Your task to perform on an android device: Check the news Image 0: 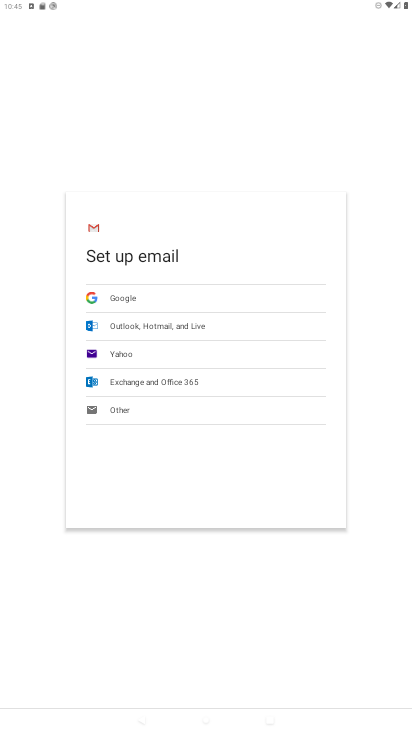
Step 0: press home button
Your task to perform on an android device: Check the news Image 1: 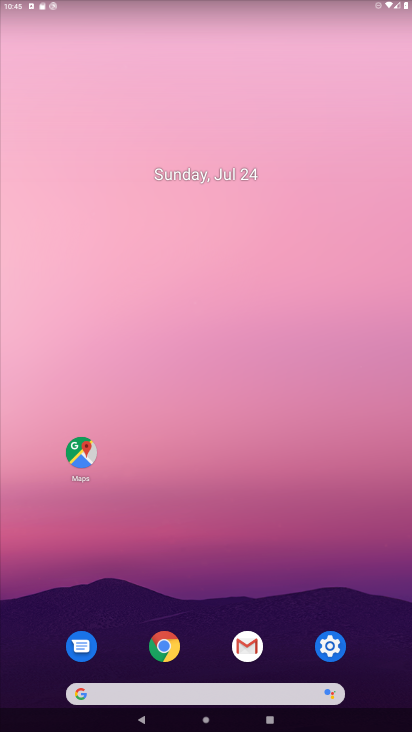
Step 1: click (245, 697)
Your task to perform on an android device: Check the news Image 2: 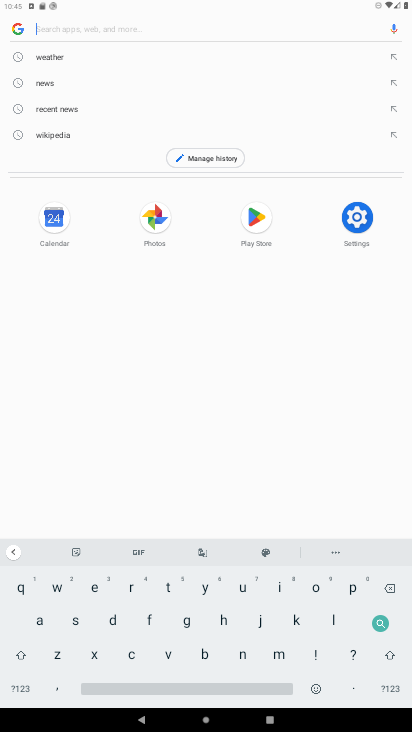
Step 2: click (53, 87)
Your task to perform on an android device: Check the news Image 3: 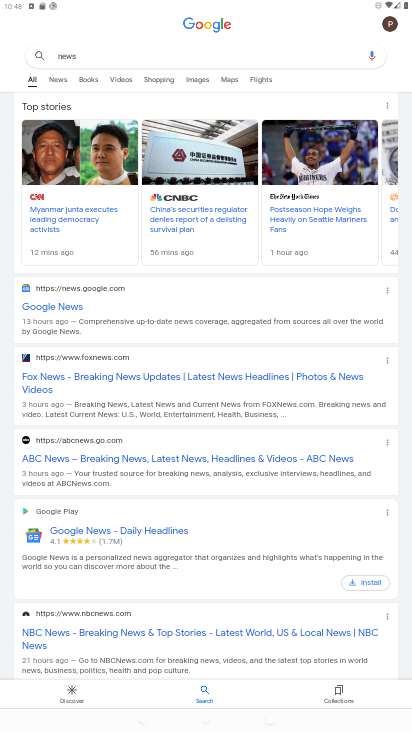
Step 3: task complete